Your task to perform on an android device: change notification settings in the gmail app Image 0: 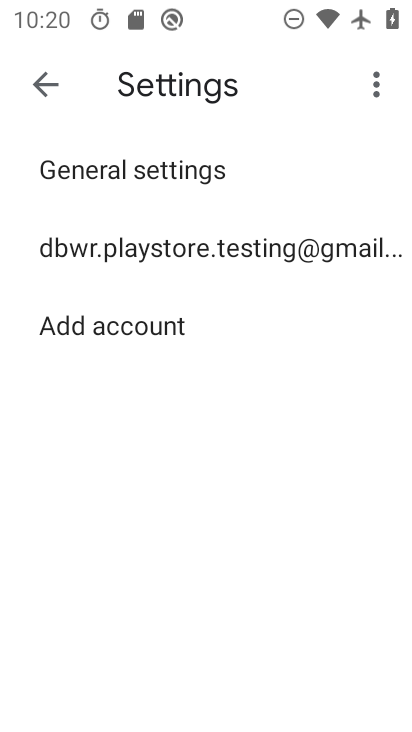
Step 0: press home button
Your task to perform on an android device: change notification settings in the gmail app Image 1: 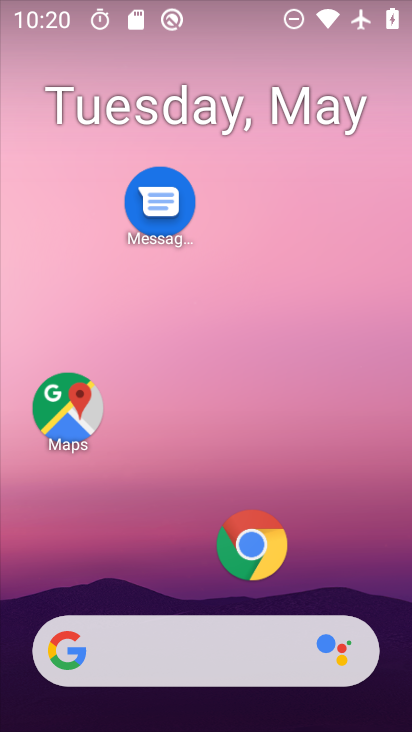
Step 1: drag from (184, 565) to (131, 146)
Your task to perform on an android device: change notification settings in the gmail app Image 2: 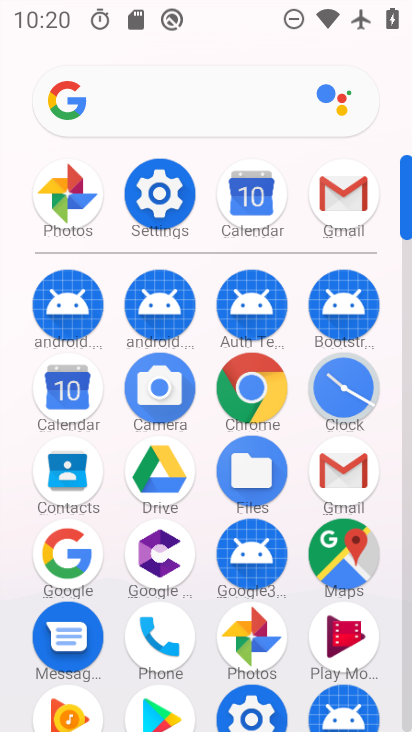
Step 2: click (358, 188)
Your task to perform on an android device: change notification settings in the gmail app Image 3: 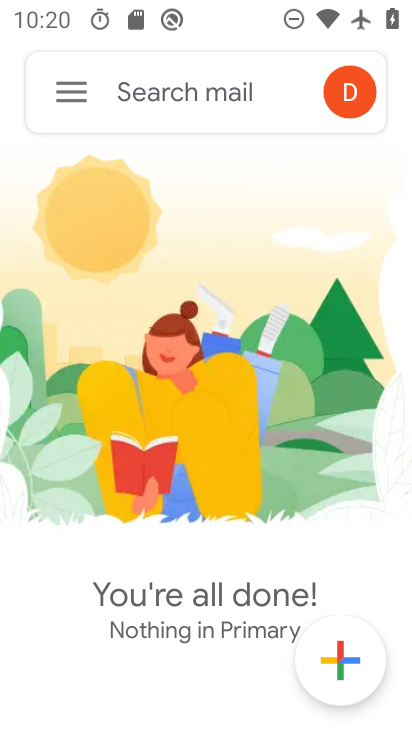
Step 3: click (88, 88)
Your task to perform on an android device: change notification settings in the gmail app Image 4: 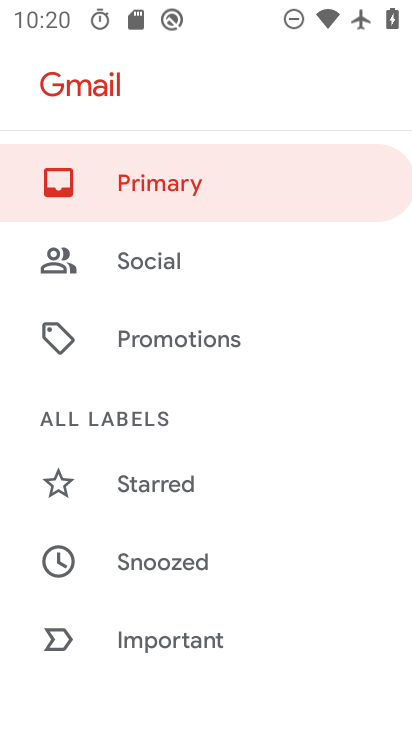
Step 4: drag from (212, 673) to (209, 347)
Your task to perform on an android device: change notification settings in the gmail app Image 5: 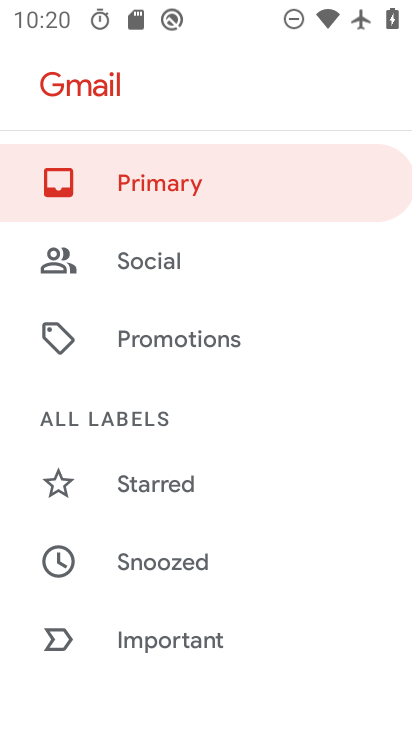
Step 5: drag from (218, 550) to (218, 240)
Your task to perform on an android device: change notification settings in the gmail app Image 6: 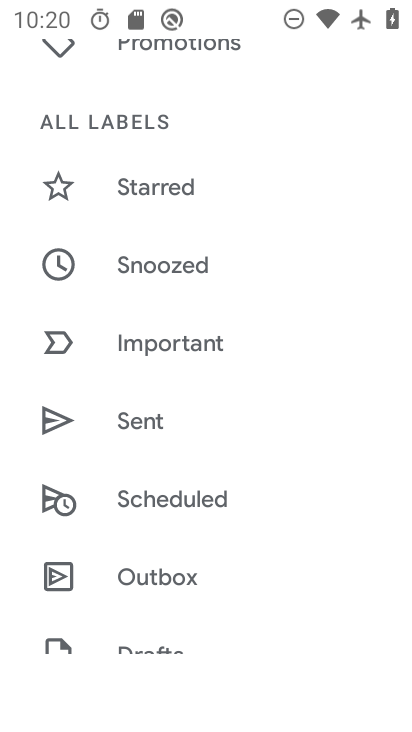
Step 6: drag from (201, 624) to (224, 295)
Your task to perform on an android device: change notification settings in the gmail app Image 7: 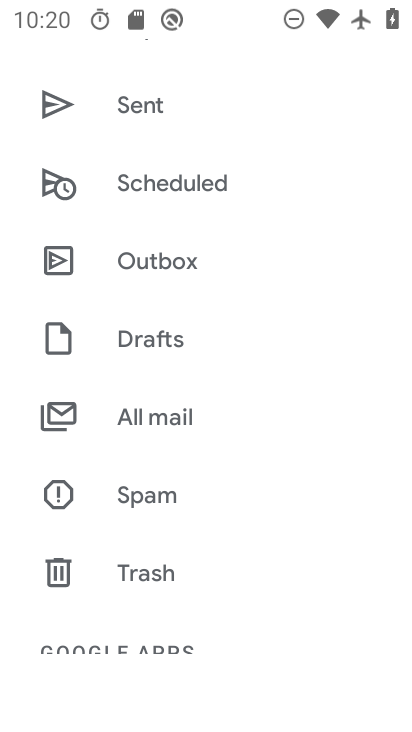
Step 7: drag from (191, 329) to (208, 297)
Your task to perform on an android device: change notification settings in the gmail app Image 8: 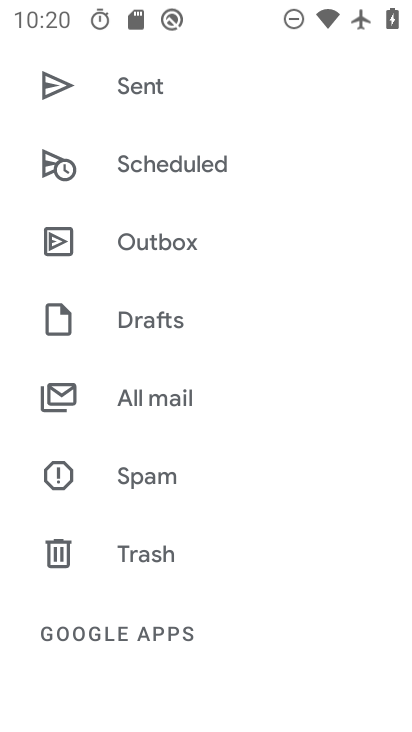
Step 8: drag from (189, 618) to (233, 285)
Your task to perform on an android device: change notification settings in the gmail app Image 9: 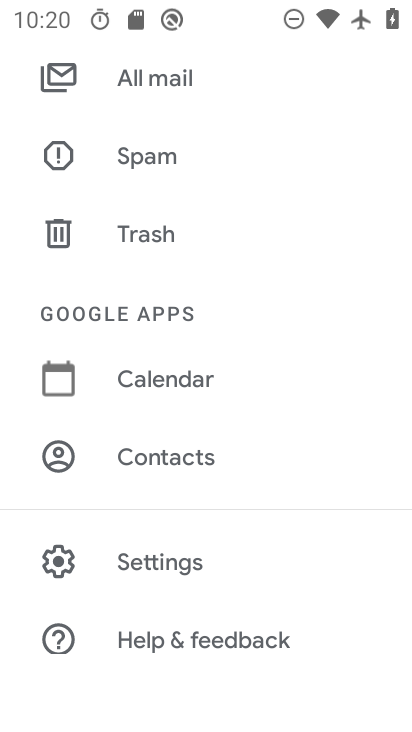
Step 9: click (189, 550)
Your task to perform on an android device: change notification settings in the gmail app Image 10: 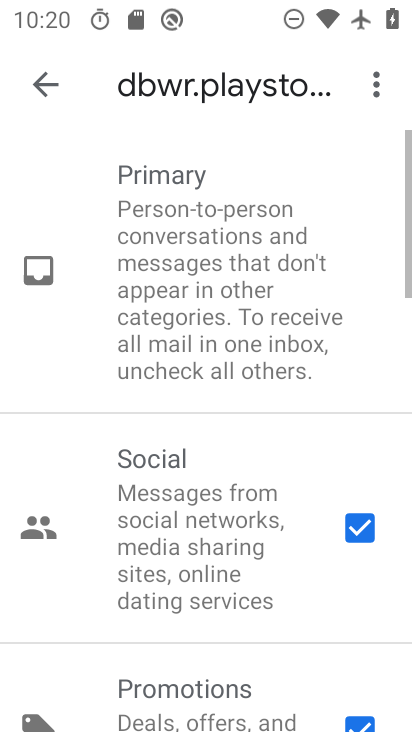
Step 10: drag from (217, 578) to (233, 403)
Your task to perform on an android device: change notification settings in the gmail app Image 11: 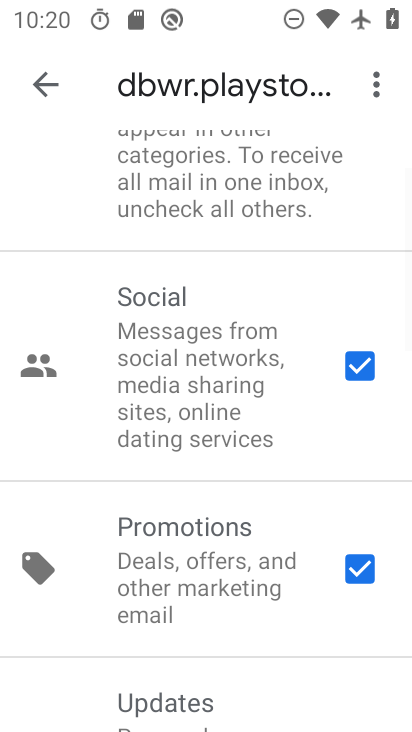
Step 11: click (54, 78)
Your task to perform on an android device: change notification settings in the gmail app Image 12: 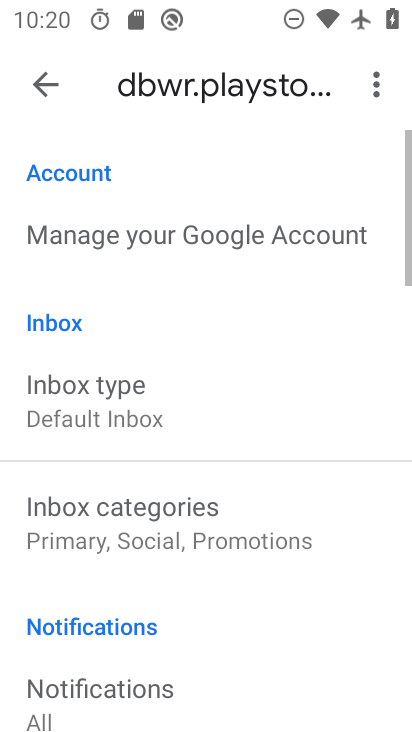
Step 12: drag from (190, 679) to (232, 310)
Your task to perform on an android device: change notification settings in the gmail app Image 13: 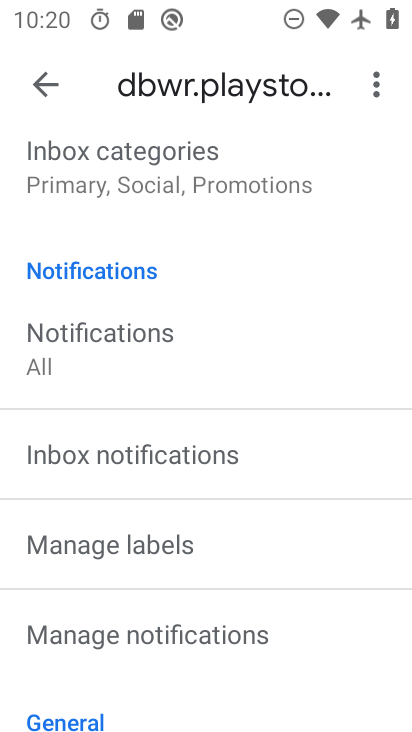
Step 13: click (190, 632)
Your task to perform on an android device: change notification settings in the gmail app Image 14: 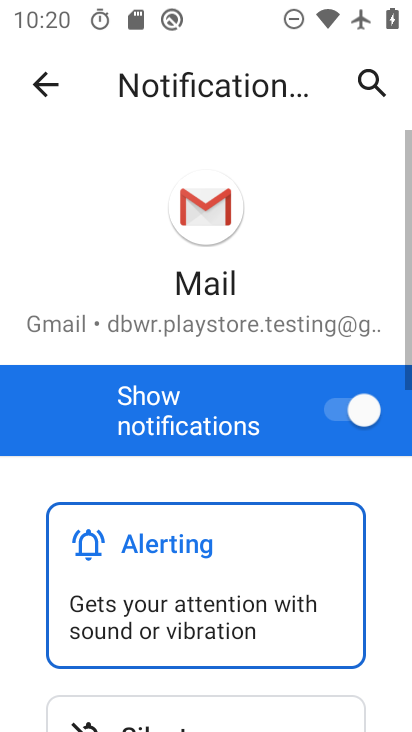
Step 14: click (324, 418)
Your task to perform on an android device: change notification settings in the gmail app Image 15: 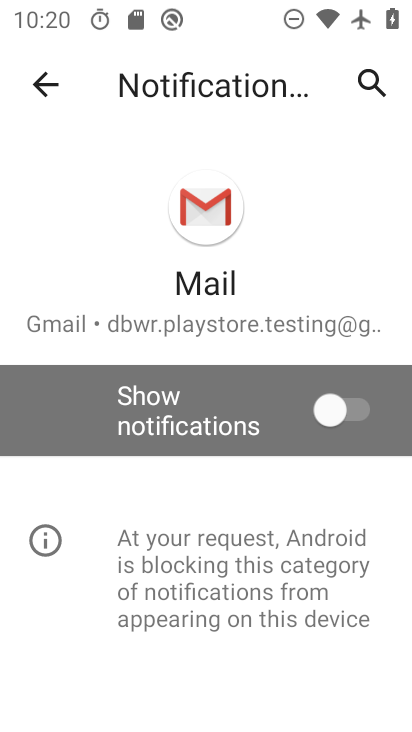
Step 15: task complete